Your task to perform on an android device: turn on javascript in the chrome app Image 0: 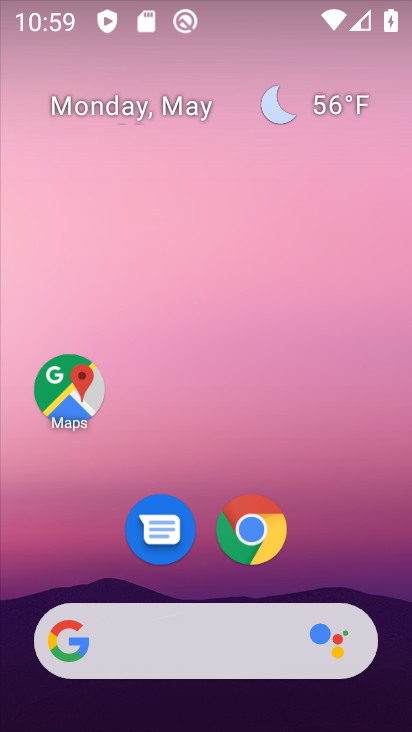
Step 0: click (252, 529)
Your task to perform on an android device: turn on javascript in the chrome app Image 1: 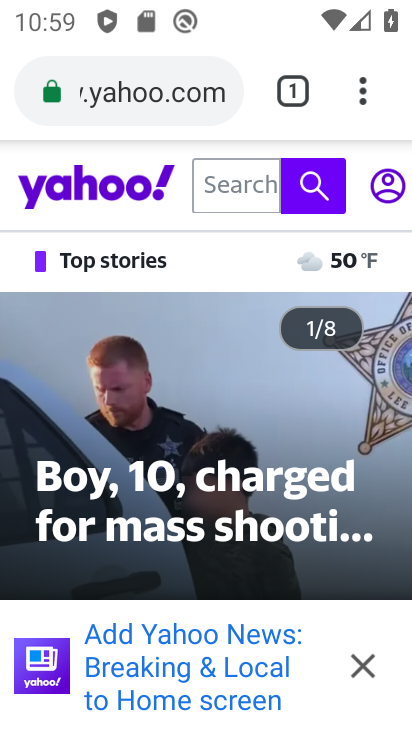
Step 1: click (364, 94)
Your task to perform on an android device: turn on javascript in the chrome app Image 2: 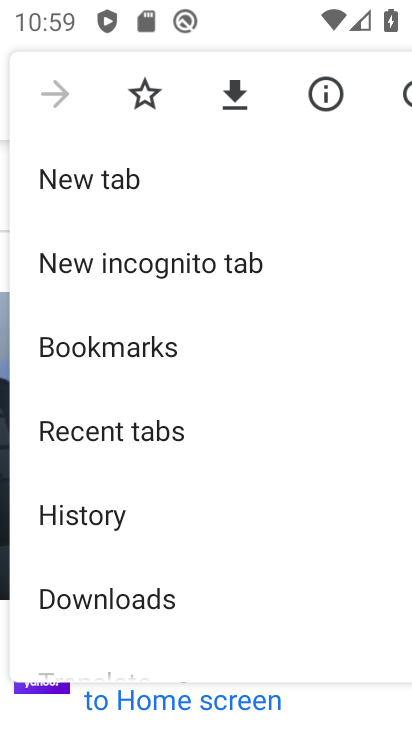
Step 2: drag from (194, 469) to (279, 356)
Your task to perform on an android device: turn on javascript in the chrome app Image 3: 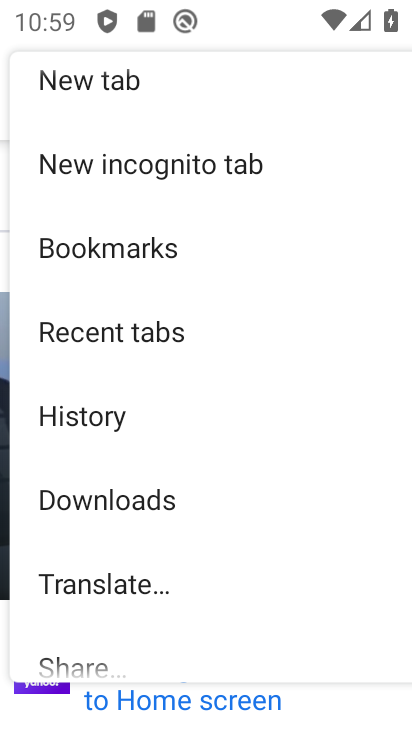
Step 3: drag from (160, 542) to (211, 471)
Your task to perform on an android device: turn on javascript in the chrome app Image 4: 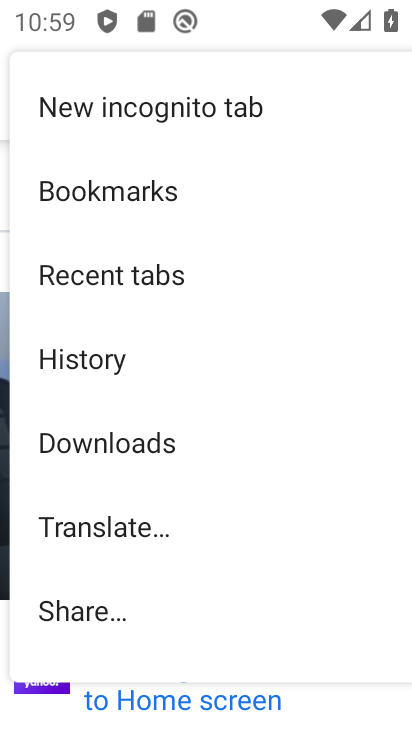
Step 4: drag from (158, 575) to (220, 464)
Your task to perform on an android device: turn on javascript in the chrome app Image 5: 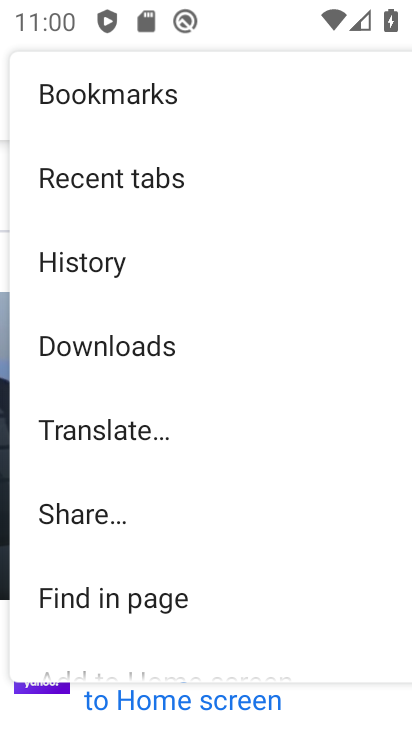
Step 5: drag from (145, 553) to (218, 459)
Your task to perform on an android device: turn on javascript in the chrome app Image 6: 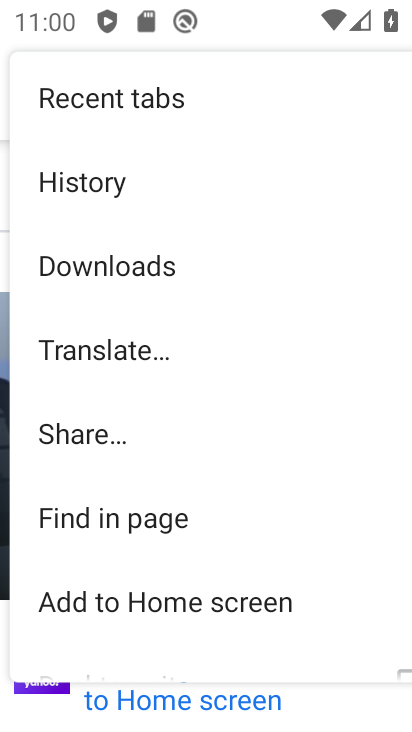
Step 6: drag from (157, 560) to (266, 451)
Your task to perform on an android device: turn on javascript in the chrome app Image 7: 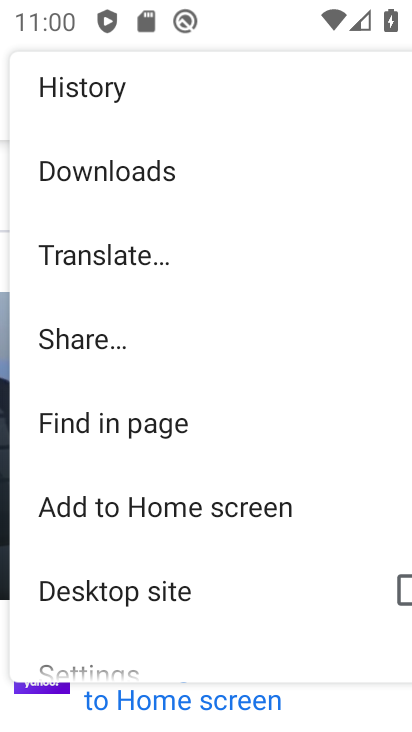
Step 7: drag from (202, 629) to (289, 483)
Your task to perform on an android device: turn on javascript in the chrome app Image 8: 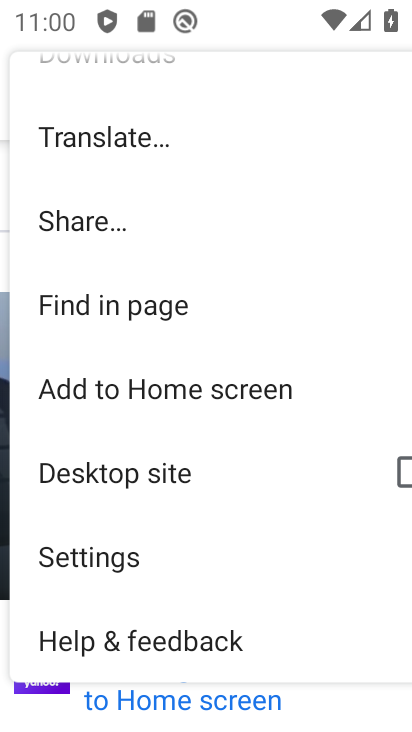
Step 8: click (128, 566)
Your task to perform on an android device: turn on javascript in the chrome app Image 9: 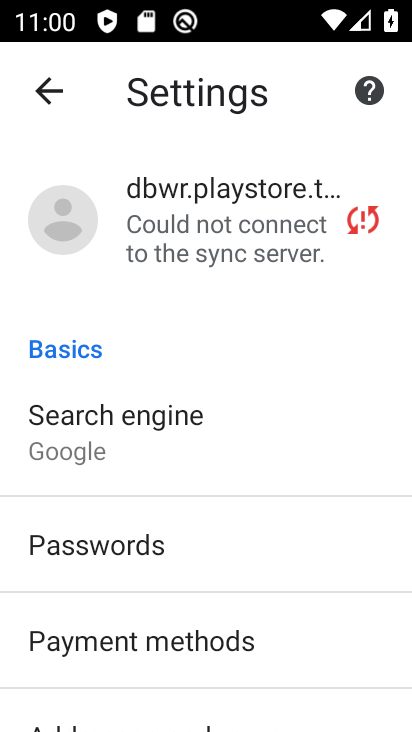
Step 9: drag from (182, 555) to (284, 445)
Your task to perform on an android device: turn on javascript in the chrome app Image 10: 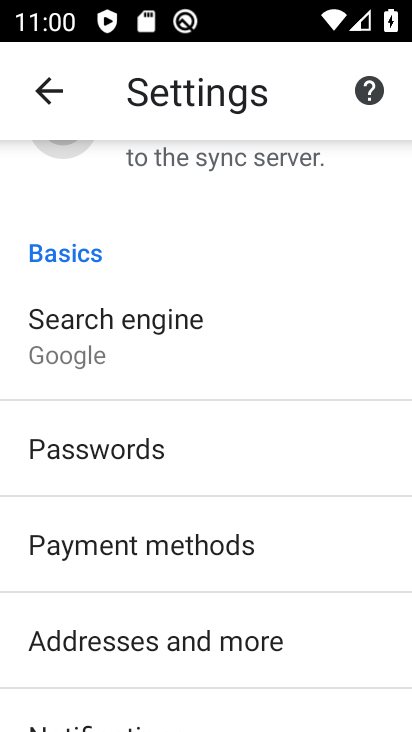
Step 10: drag from (141, 617) to (216, 508)
Your task to perform on an android device: turn on javascript in the chrome app Image 11: 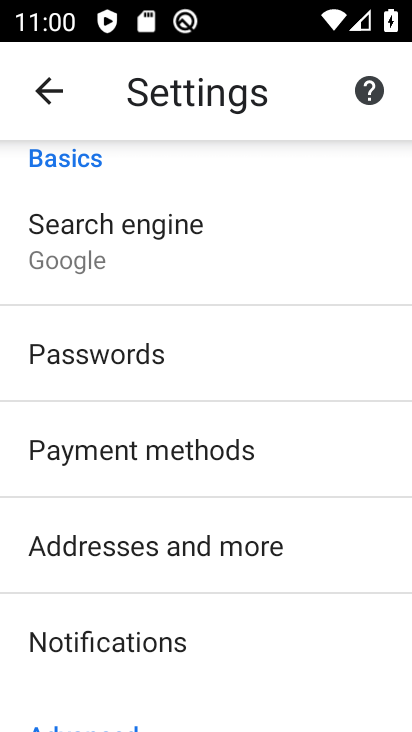
Step 11: drag from (209, 640) to (299, 484)
Your task to perform on an android device: turn on javascript in the chrome app Image 12: 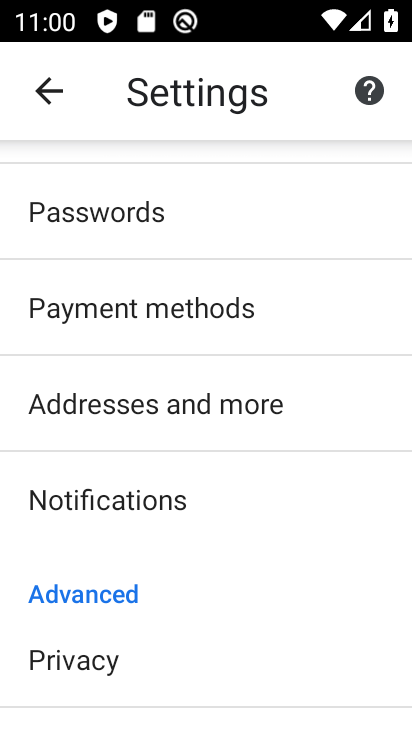
Step 12: drag from (158, 624) to (255, 491)
Your task to perform on an android device: turn on javascript in the chrome app Image 13: 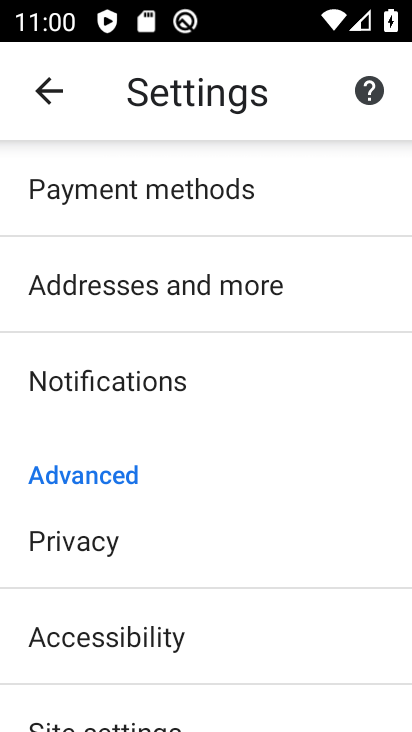
Step 13: drag from (133, 598) to (221, 468)
Your task to perform on an android device: turn on javascript in the chrome app Image 14: 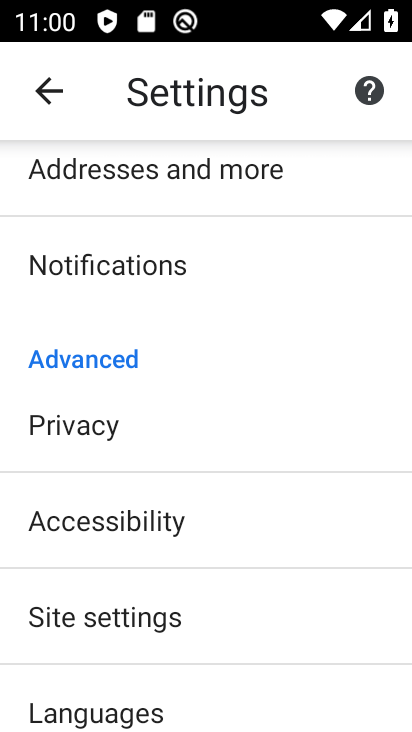
Step 14: click (167, 626)
Your task to perform on an android device: turn on javascript in the chrome app Image 15: 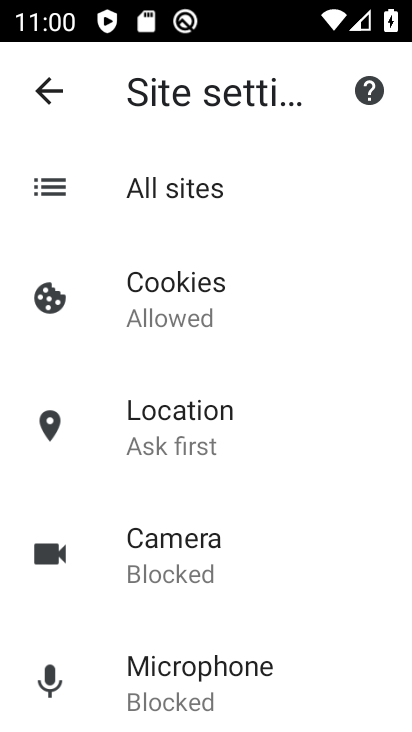
Step 15: drag from (223, 622) to (295, 519)
Your task to perform on an android device: turn on javascript in the chrome app Image 16: 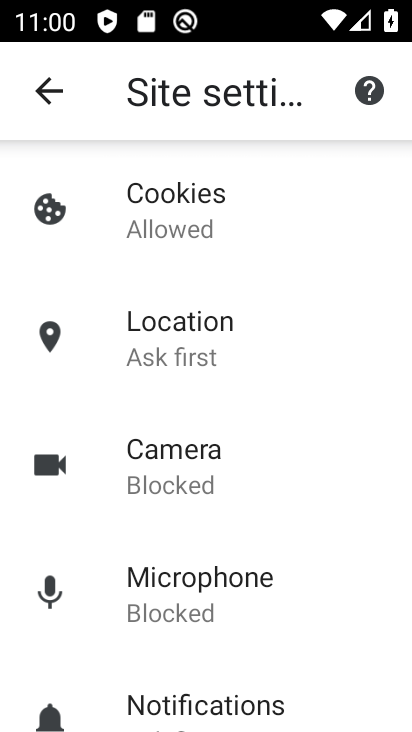
Step 16: drag from (207, 638) to (250, 502)
Your task to perform on an android device: turn on javascript in the chrome app Image 17: 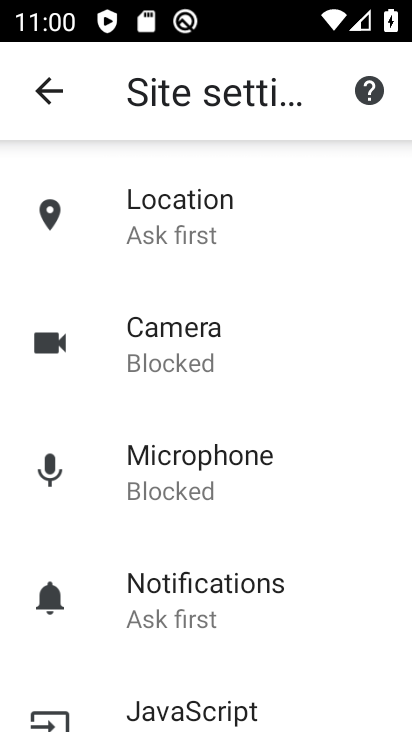
Step 17: drag from (187, 642) to (266, 519)
Your task to perform on an android device: turn on javascript in the chrome app Image 18: 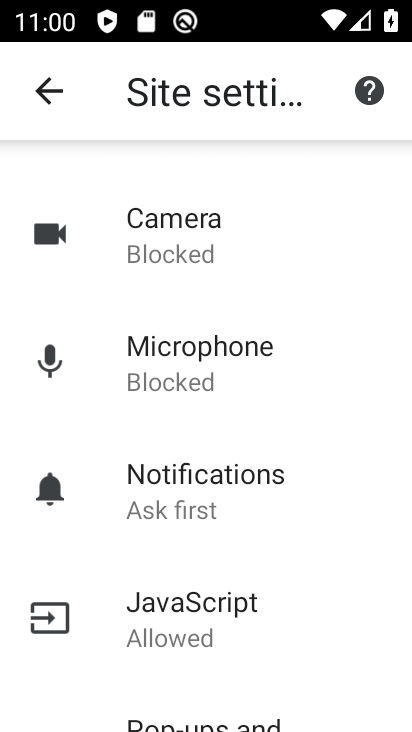
Step 18: click (203, 632)
Your task to perform on an android device: turn on javascript in the chrome app Image 19: 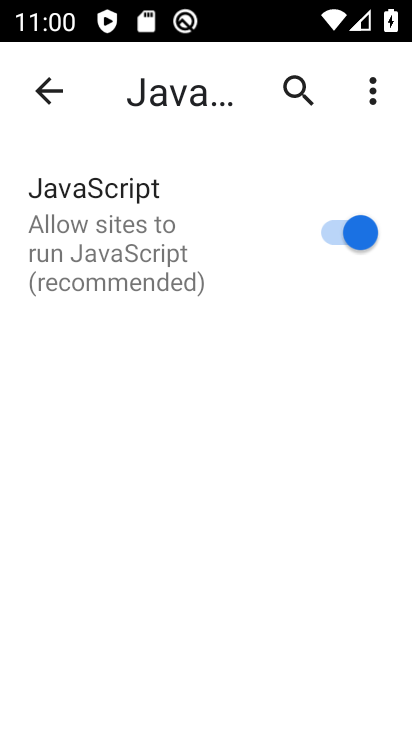
Step 19: task complete